Your task to perform on an android device: turn off javascript in the chrome app Image 0: 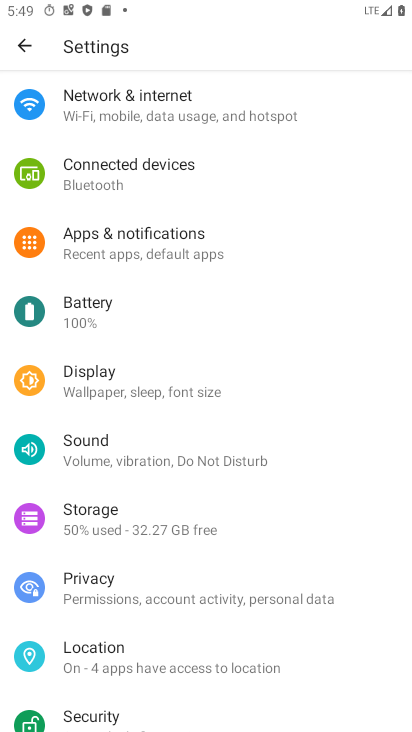
Step 0: press home button
Your task to perform on an android device: turn off javascript in the chrome app Image 1: 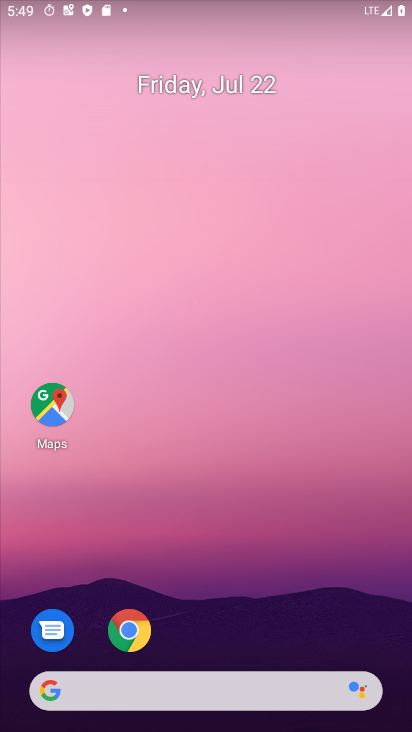
Step 1: drag from (122, 638) to (217, 7)
Your task to perform on an android device: turn off javascript in the chrome app Image 2: 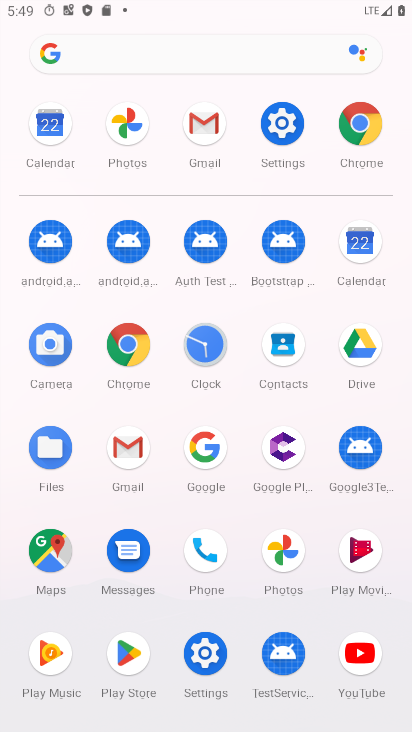
Step 2: click (129, 343)
Your task to perform on an android device: turn off javascript in the chrome app Image 3: 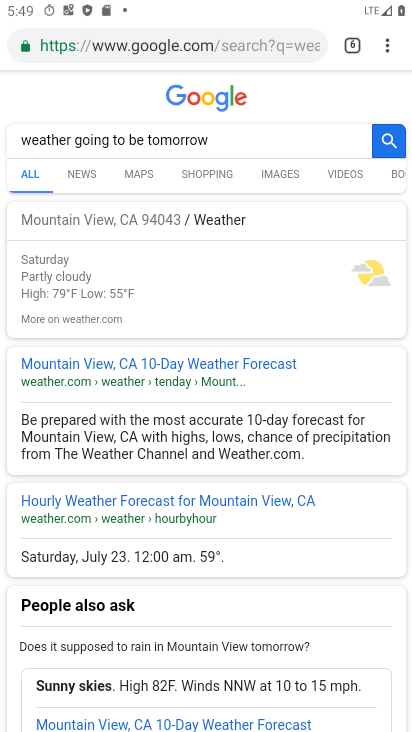
Step 3: drag from (388, 46) to (231, 511)
Your task to perform on an android device: turn off javascript in the chrome app Image 4: 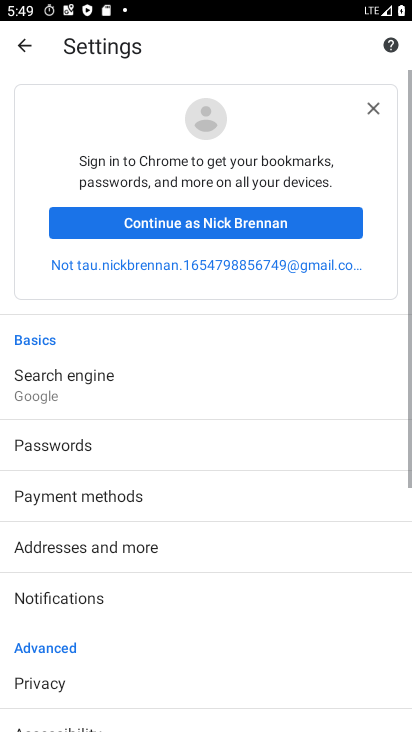
Step 4: drag from (147, 618) to (182, 172)
Your task to perform on an android device: turn off javascript in the chrome app Image 5: 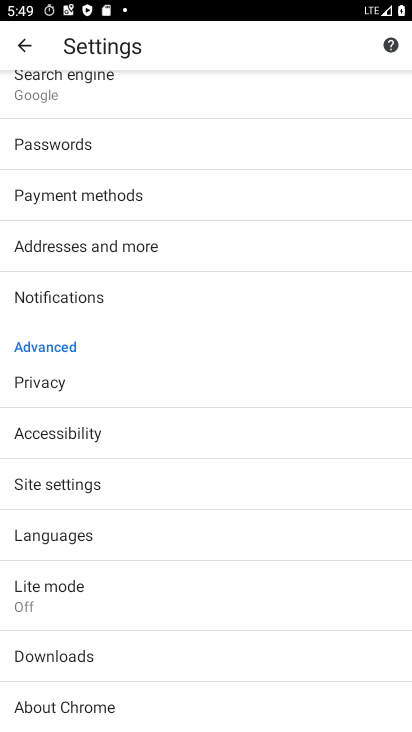
Step 5: click (98, 488)
Your task to perform on an android device: turn off javascript in the chrome app Image 6: 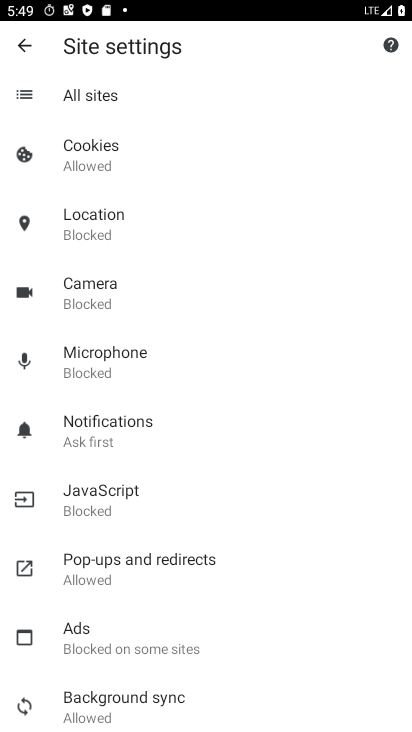
Step 6: click (94, 491)
Your task to perform on an android device: turn off javascript in the chrome app Image 7: 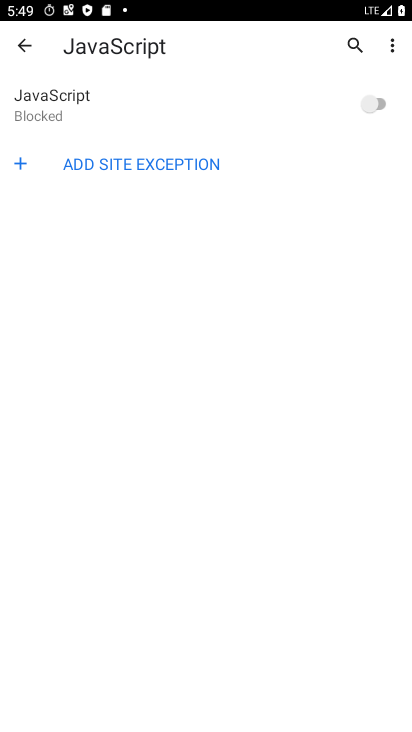
Step 7: task complete